Your task to perform on an android device: choose inbox layout in the gmail app Image 0: 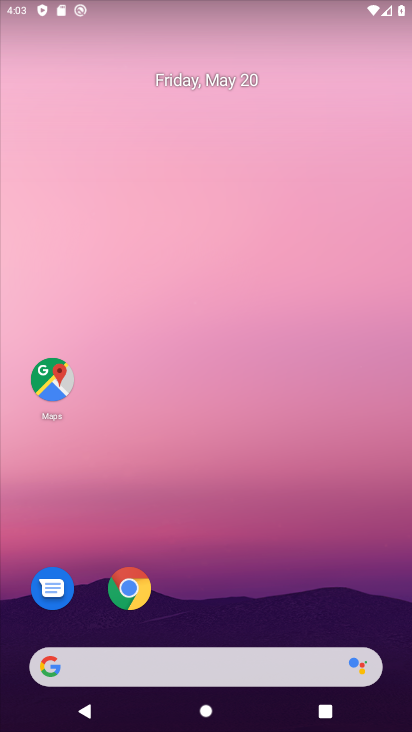
Step 0: drag from (277, 559) to (255, 99)
Your task to perform on an android device: choose inbox layout in the gmail app Image 1: 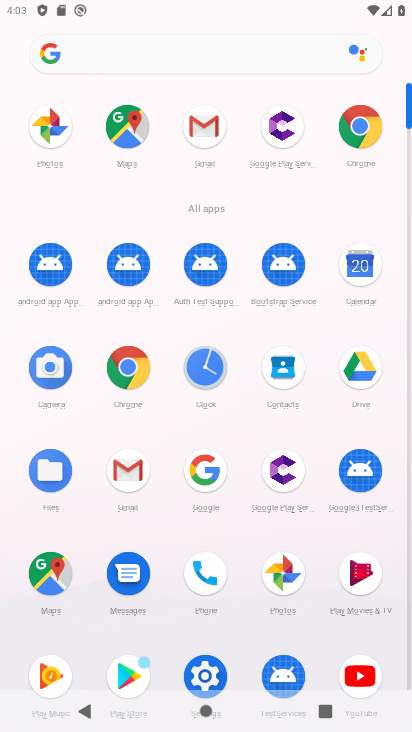
Step 1: click (123, 469)
Your task to perform on an android device: choose inbox layout in the gmail app Image 2: 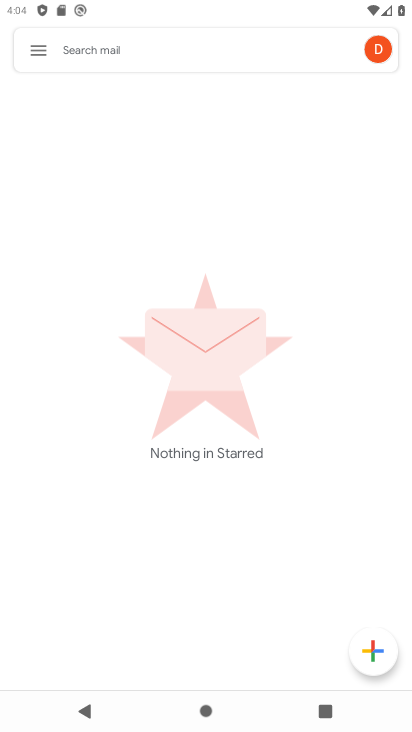
Step 2: click (36, 52)
Your task to perform on an android device: choose inbox layout in the gmail app Image 3: 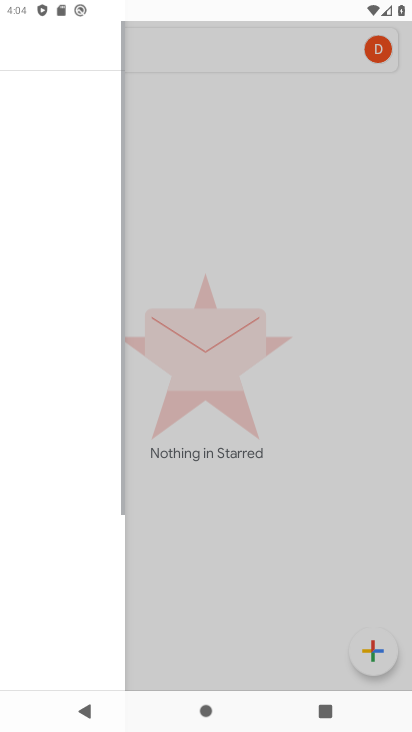
Step 3: click (36, 53)
Your task to perform on an android device: choose inbox layout in the gmail app Image 4: 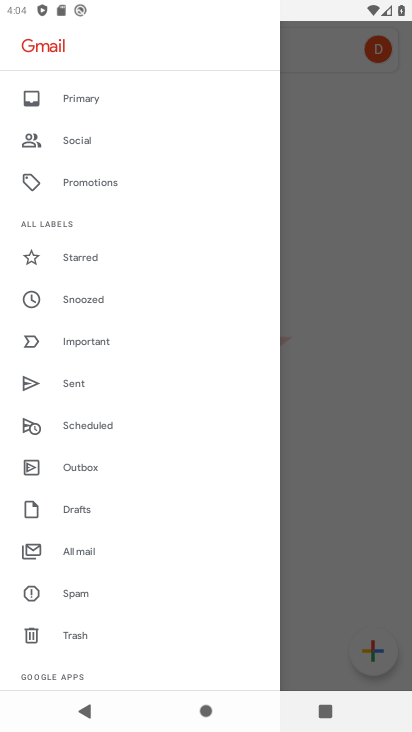
Step 4: drag from (167, 564) to (160, 236)
Your task to perform on an android device: choose inbox layout in the gmail app Image 5: 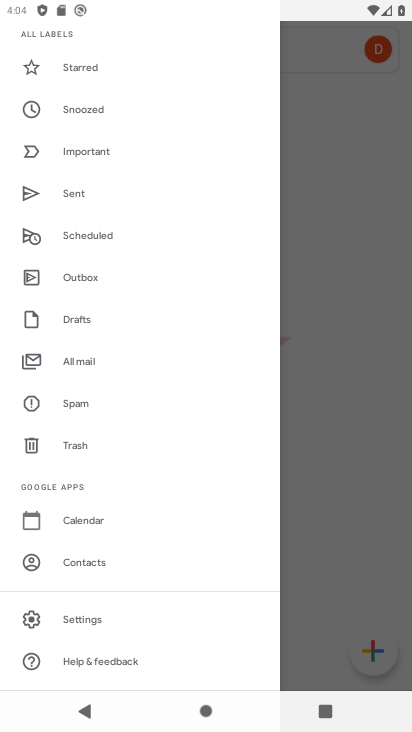
Step 5: click (72, 617)
Your task to perform on an android device: choose inbox layout in the gmail app Image 6: 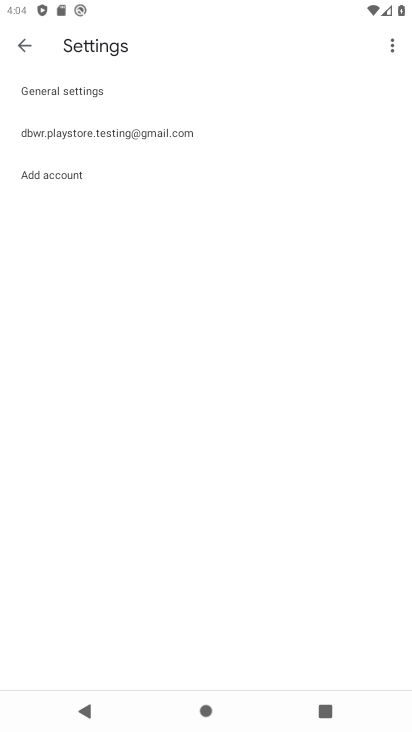
Step 6: click (132, 130)
Your task to perform on an android device: choose inbox layout in the gmail app Image 7: 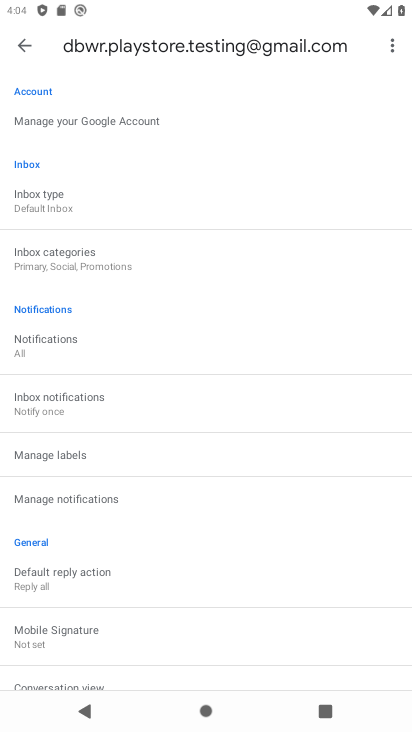
Step 7: click (53, 189)
Your task to perform on an android device: choose inbox layout in the gmail app Image 8: 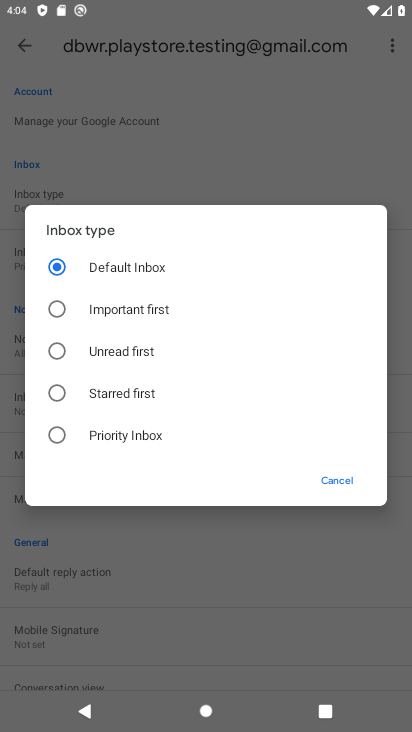
Step 8: click (111, 433)
Your task to perform on an android device: choose inbox layout in the gmail app Image 9: 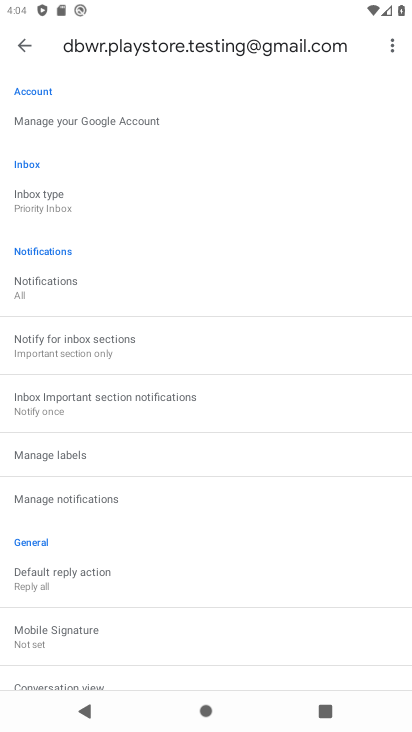
Step 9: task complete